Your task to perform on an android device: show emergency info Image 0: 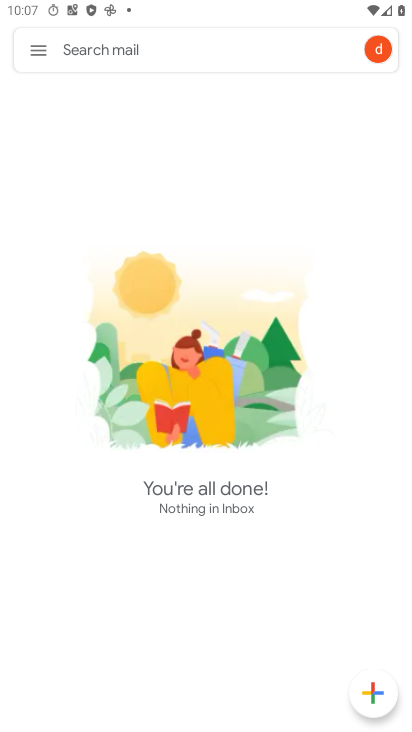
Step 0: press home button
Your task to perform on an android device: show emergency info Image 1: 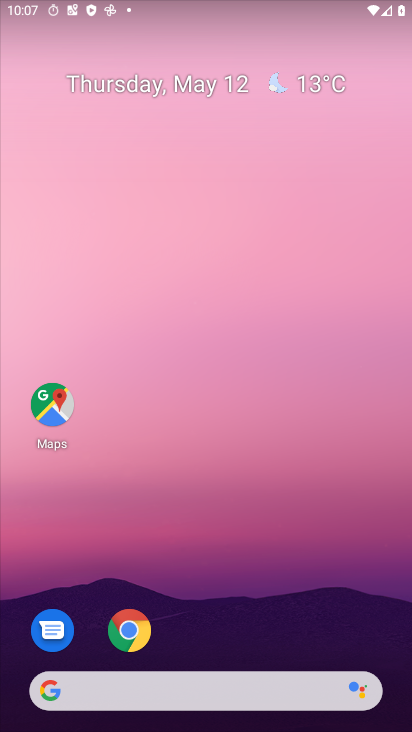
Step 1: drag from (208, 696) to (201, 265)
Your task to perform on an android device: show emergency info Image 2: 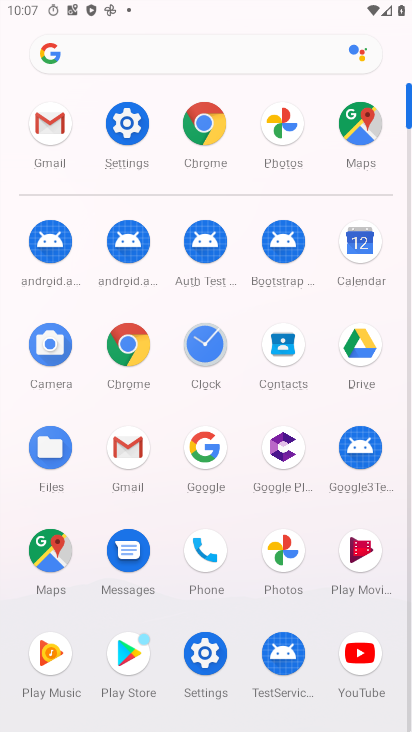
Step 2: click (197, 659)
Your task to perform on an android device: show emergency info Image 3: 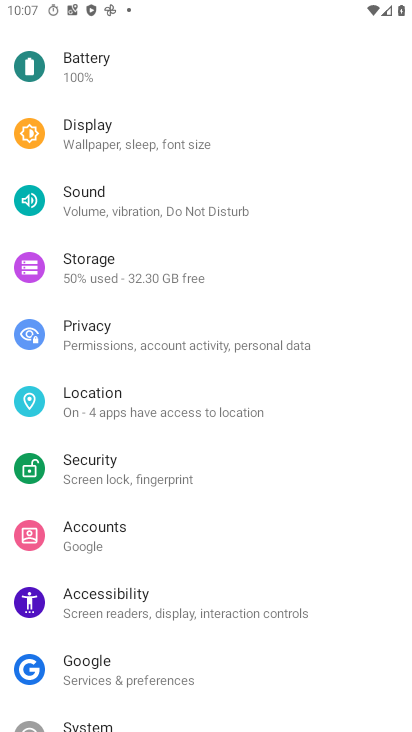
Step 3: drag from (151, 543) to (146, 143)
Your task to perform on an android device: show emergency info Image 4: 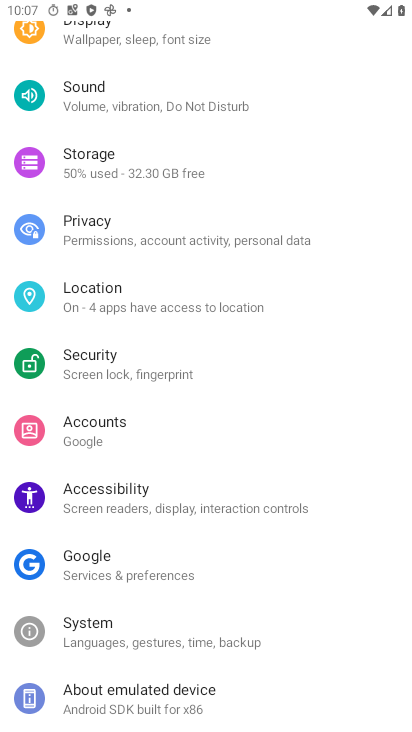
Step 4: click (132, 702)
Your task to perform on an android device: show emergency info Image 5: 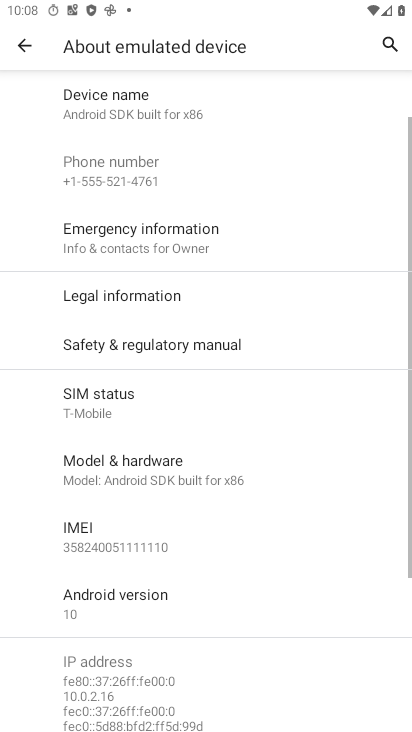
Step 5: click (100, 244)
Your task to perform on an android device: show emergency info Image 6: 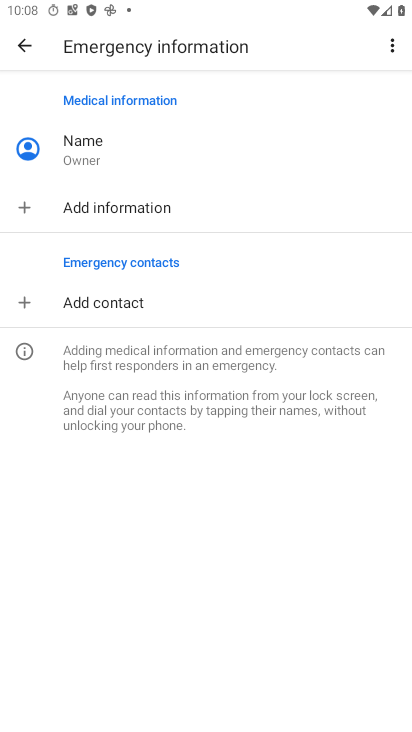
Step 6: task complete